Your task to perform on an android device: turn off improve location accuracy Image 0: 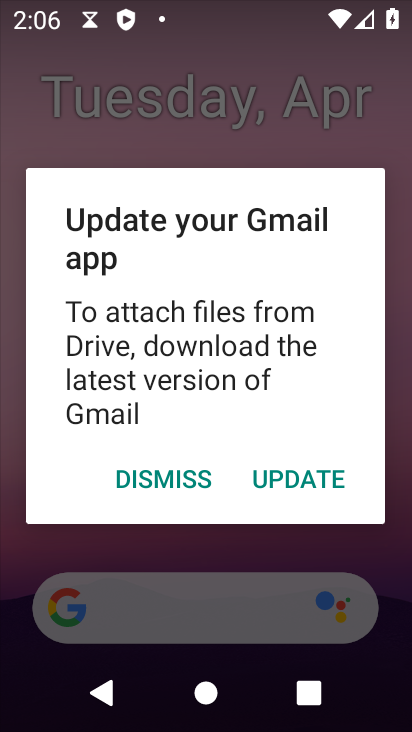
Step 0: drag from (341, 495) to (286, 33)
Your task to perform on an android device: turn off improve location accuracy Image 1: 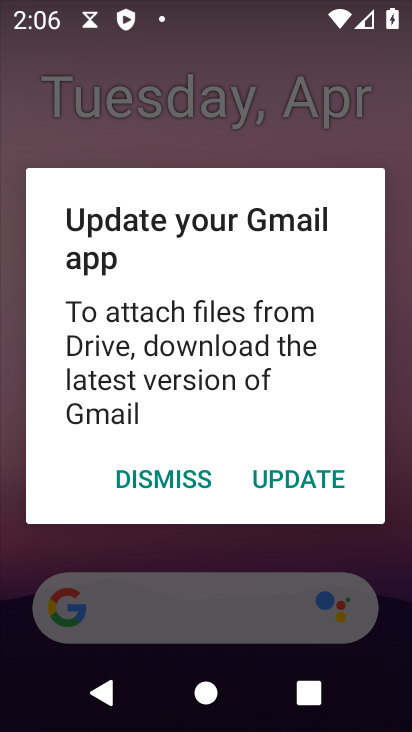
Step 1: press home button
Your task to perform on an android device: turn off improve location accuracy Image 2: 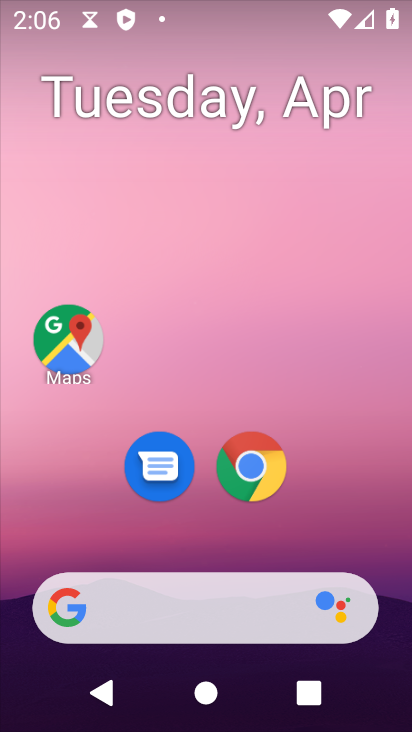
Step 2: drag from (350, 451) to (215, 10)
Your task to perform on an android device: turn off improve location accuracy Image 3: 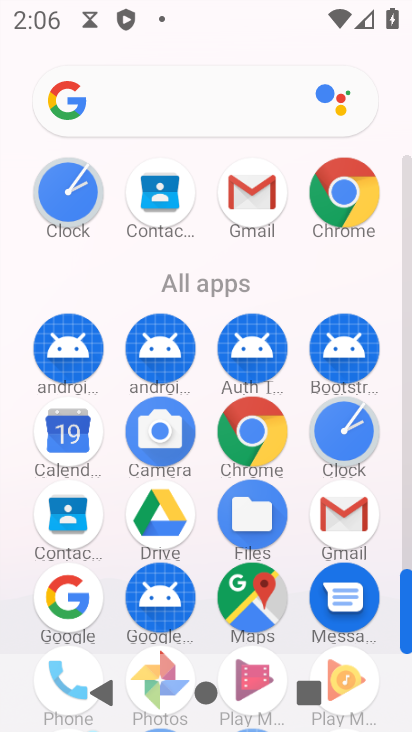
Step 3: drag from (18, 506) to (33, 229)
Your task to perform on an android device: turn off improve location accuracy Image 4: 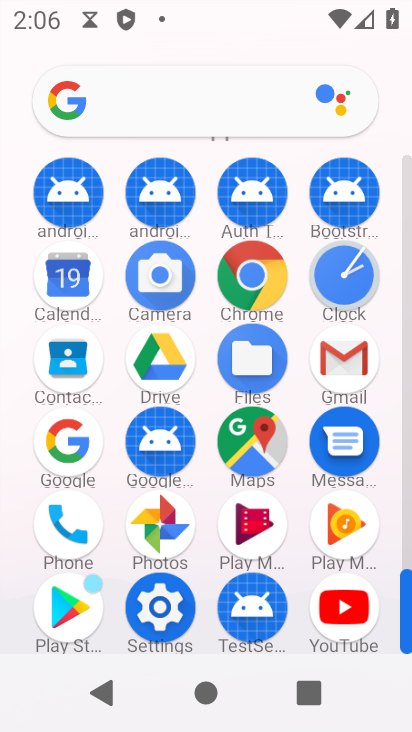
Step 4: click (162, 602)
Your task to perform on an android device: turn off improve location accuracy Image 5: 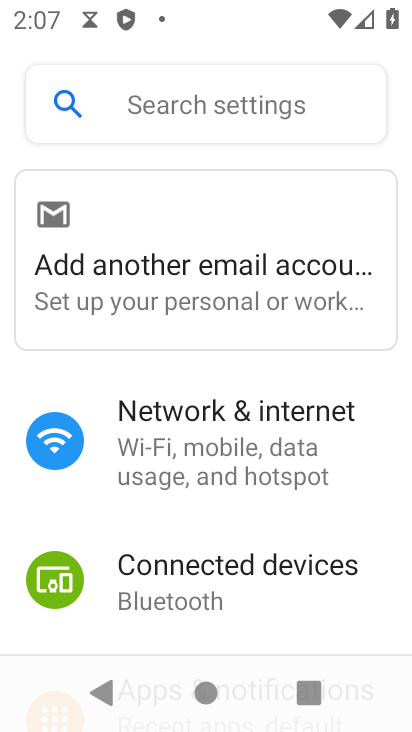
Step 5: drag from (246, 541) to (235, 261)
Your task to perform on an android device: turn off improve location accuracy Image 6: 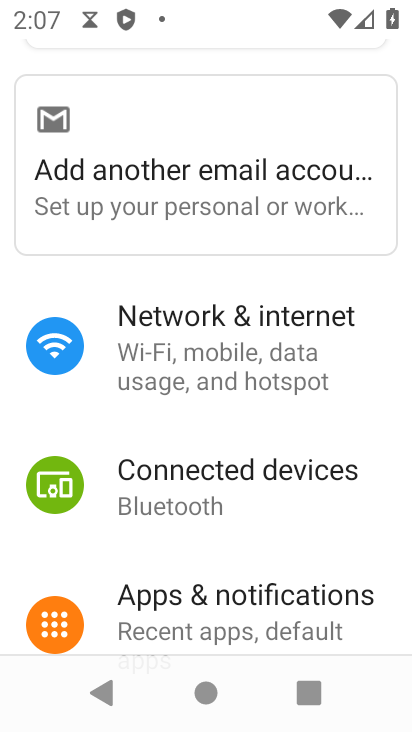
Step 6: drag from (209, 474) to (218, 288)
Your task to perform on an android device: turn off improve location accuracy Image 7: 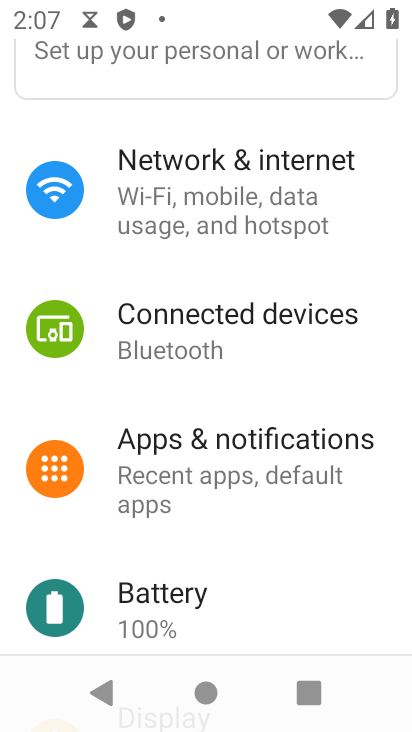
Step 7: drag from (252, 508) to (250, 199)
Your task to perform on an android device: turn off improve location accuracy Image 8: 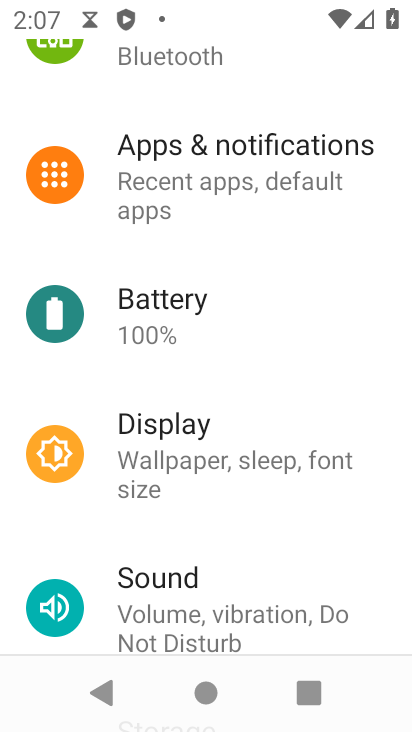
Step 8: drag from (234, 443) to (243, 136)
Your task to perform on an android device: turn off improve location accuracy Image 9: 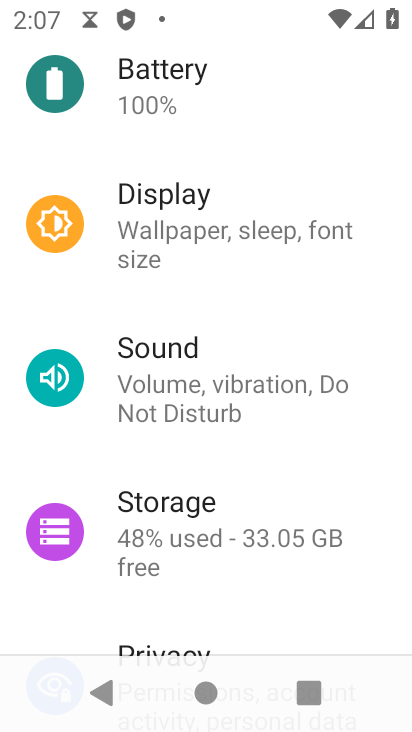
Step 9: drag from (257, 224) to (257, 186)
Your task to perform on an android device: turn off improve location accuracy Image 10: 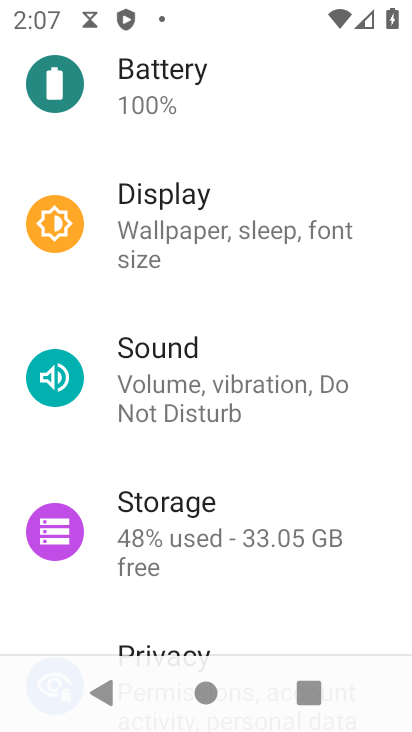
Step 10: drag from (223, 336) to (225, 182)
Your task to perform on an android device: turn off improve location accuracy Image 11: 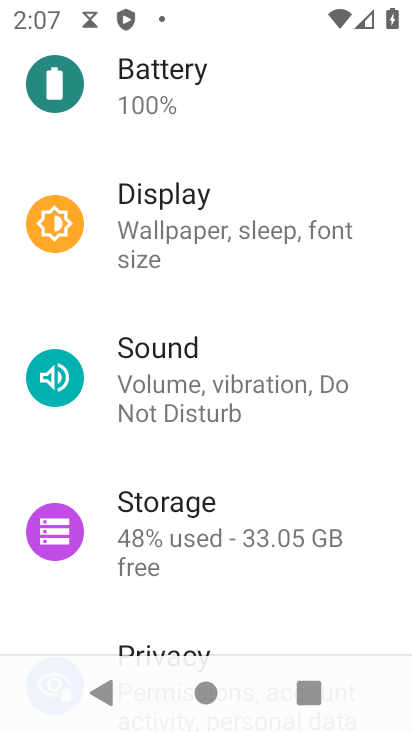
Step 11: drag from (218, 540) to (219, 190)
Your task to perform on an android device: turn off improve location accuracy Image 12: 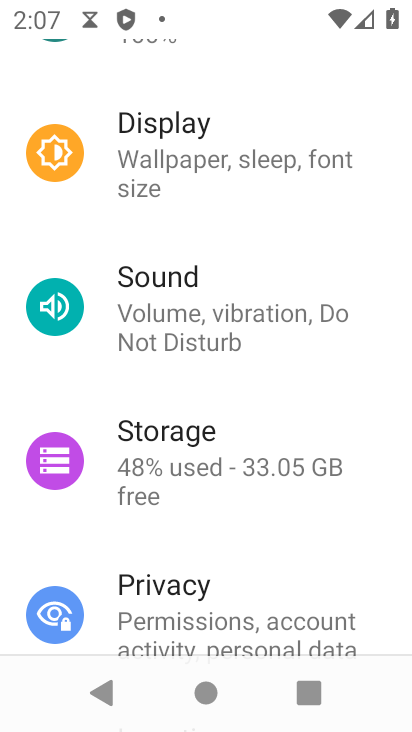
Step 12: drag from (221, 189) to (221, 150)
Your task to perform on an android device: turn off improve location accuracy Image 13: 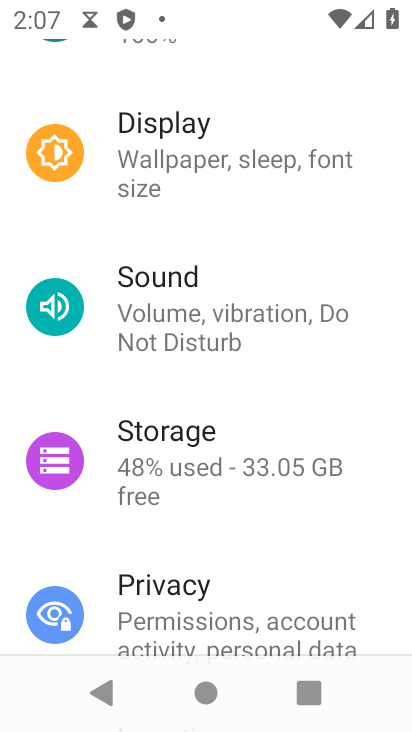
Step 13: click (229, 216)
Your task to perform on an android device: turn off improve location accuracy Image 14: 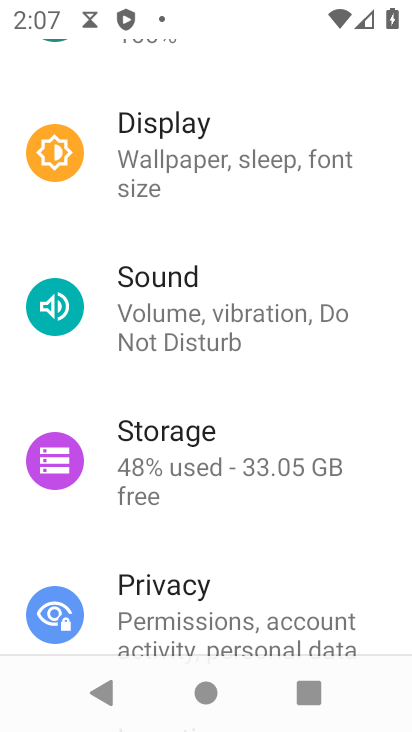
Step 14: drag from (280, 260) to (280, 128)
Your task to perform on an android device: turn off improve location accuracy Image 15: 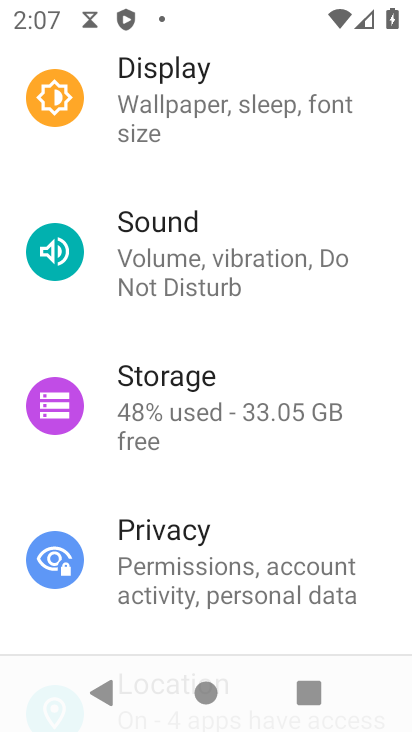
Step 15: drag from (247, 513) to (247, 161)
Your task to perform on an android device: turn off improve location accuracy Image 16: 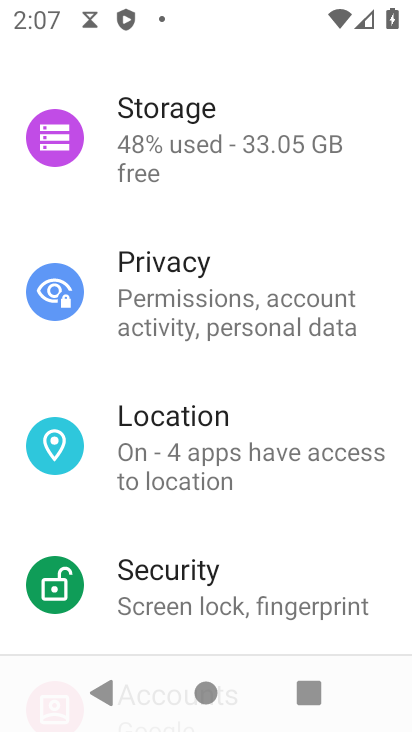
Step 16: click (201, 453)
Your task to perform on an android device: turn off improve location accuracy Image 17: 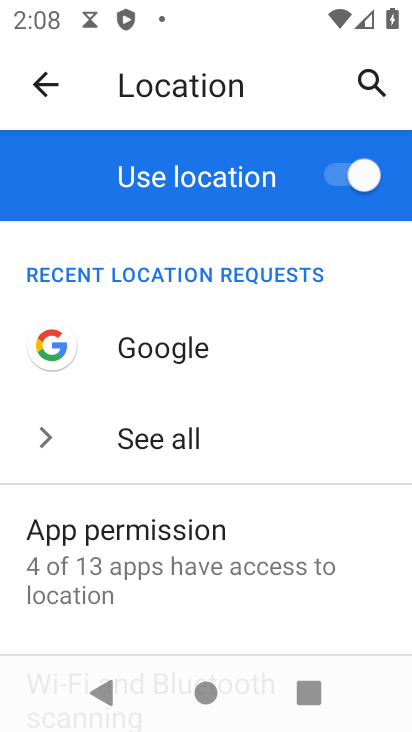
Step 17: drag from (235, 544) to (245, 258)
Your task to perform on an android device: turn off improve location accuracy Image 18: 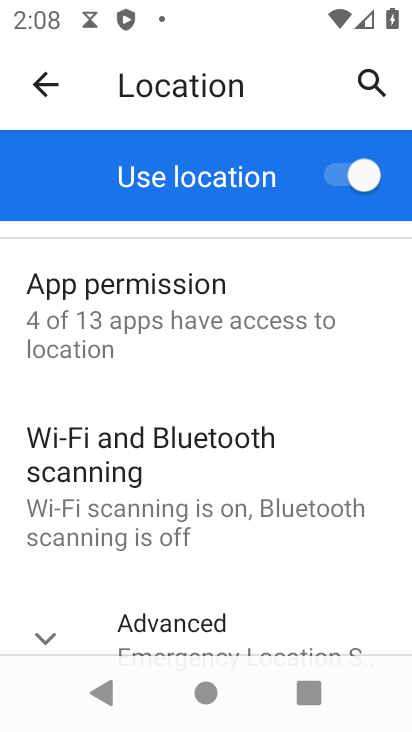
Step 18: drag from (247, 610) to (261, 307)
Your task to perform on an android device: turn off improve location accuracy Image 19: 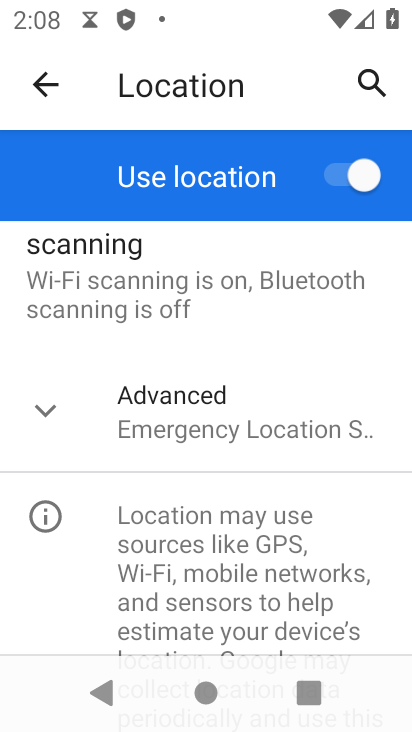
Step 19: click (260, 422)
Your task to perform on an android device: turn off improve location accuracy Image 20: 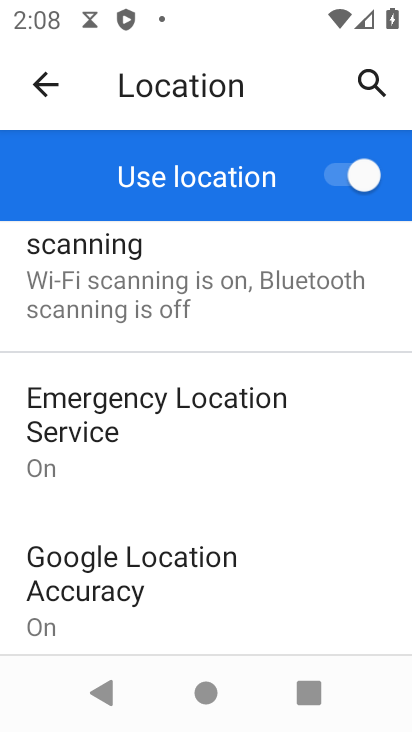
Step 20: drag from (266, 551) to (255, 290)
Your task to perform on an android device: turn off improve location accuracy Image 21: 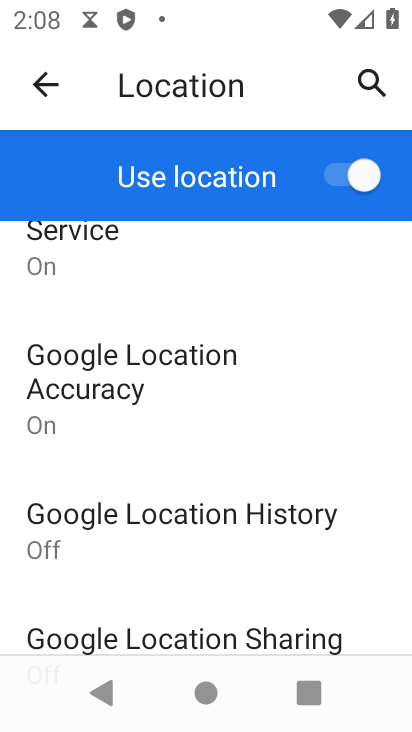
Step 21: click (169, 386)
Your task to perform on an android device: turn off improve location accuracy Image 22: 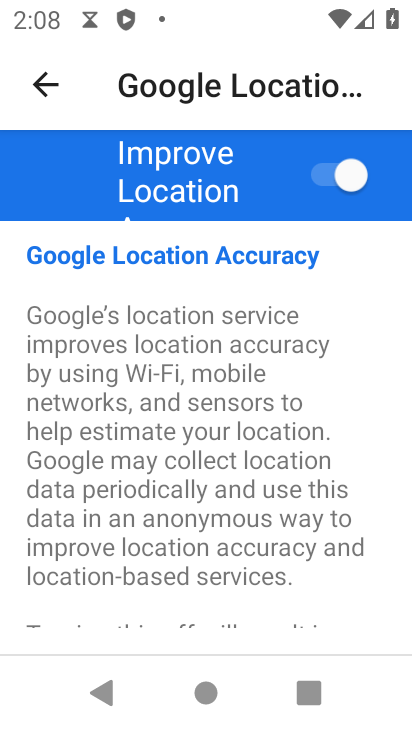
Step 22: click (341, 172)
Your task to perform on an android device: turn off improve location accuracy Image 23: 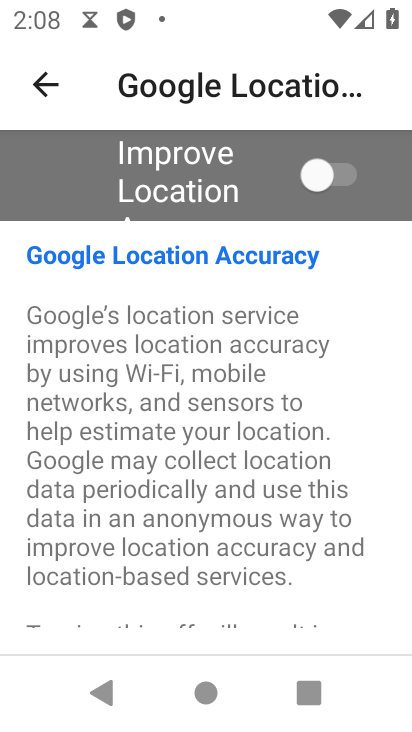
Step 23: task complete